Your task to perform on an android device: Go to privacy settings Image 0: 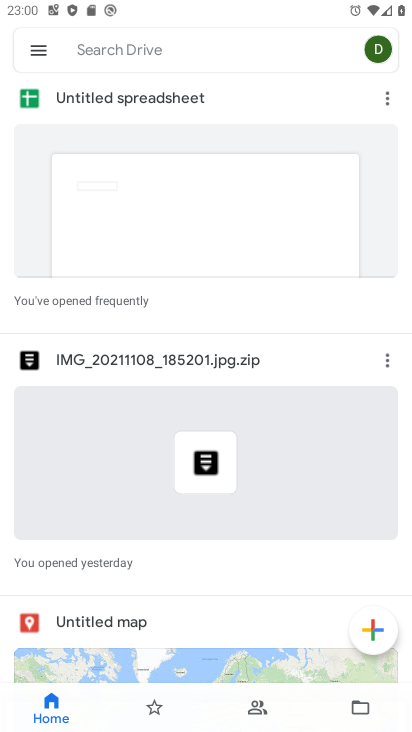
Step 0: press home button
Your task to perform on an android device: Go to privacy settings Image 1: 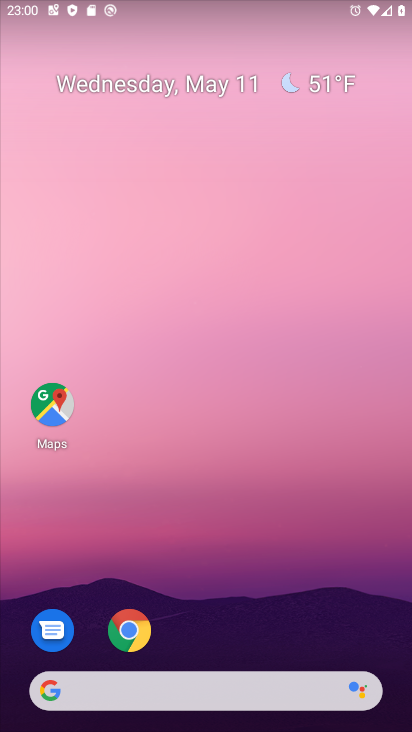
Step 1: drag from (214, 727) to (229, 159)
Your task to perform on an android device: Go to privacy settings Image 2: 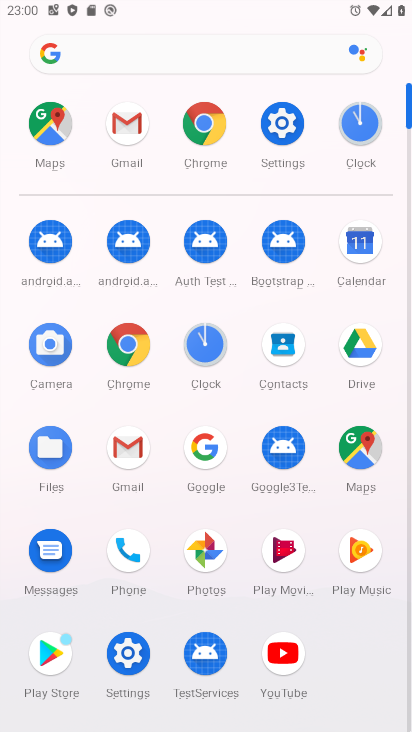
Step 2: click (283, 123)
Your task to perform on an android device: Go to privacy settings Image 3: 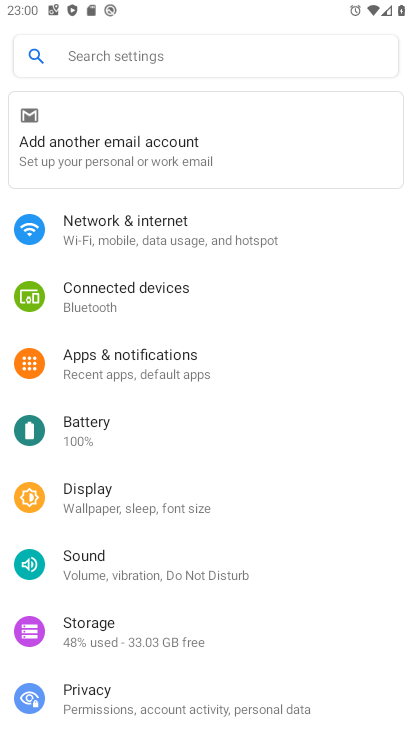
Step 3: click (104, 693)
Your task to perform on an android device: Go to privacy settings Image 4: 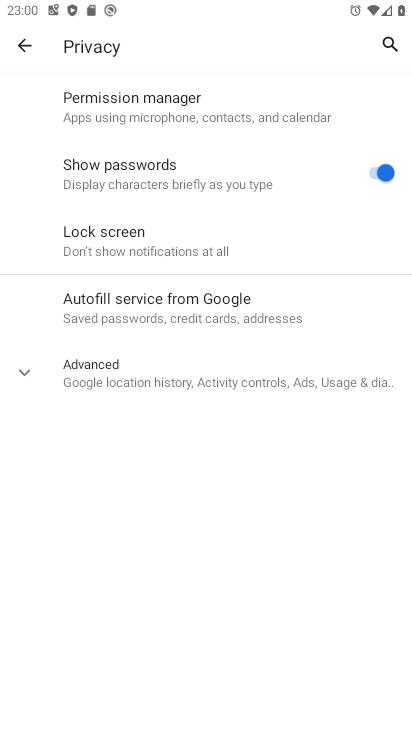
Step 4: task complete